Your task to perform on an android device: Open the map Image 0: 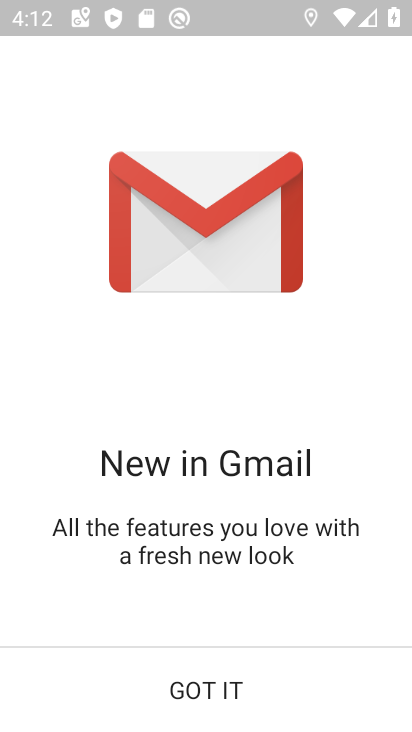
Step 0: press back button
Your task to perform on an android device: Open the map Image 1: 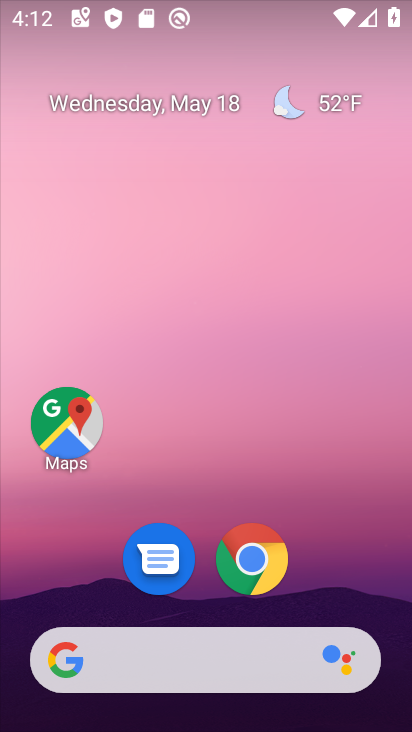
Step 1: click (55, 415)
Your task to perform on an android device: Open the map Image 2: 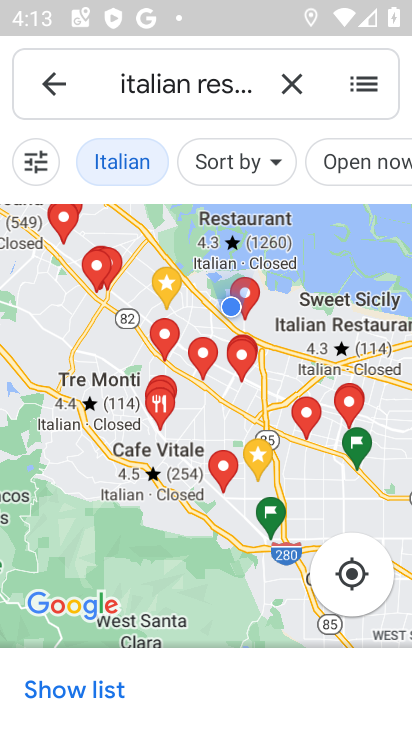
Step 2: task complete